Your task to perform on an android device: delete the emails in spam in the gmail app Image 0: 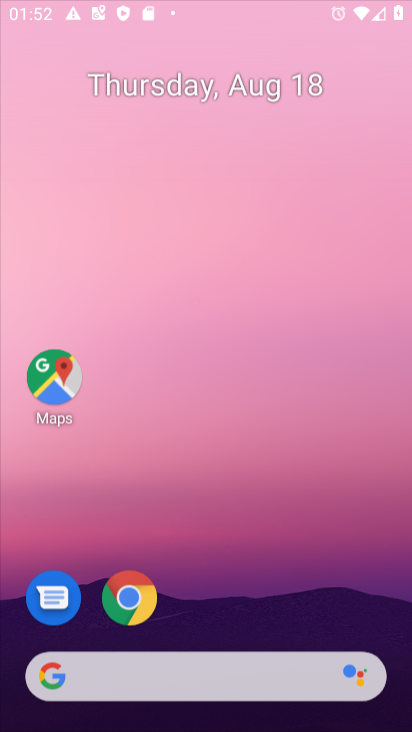
Step 0: press home button
Your task to perform on an android device: delete the emails in spam in the gmail app Image 1: 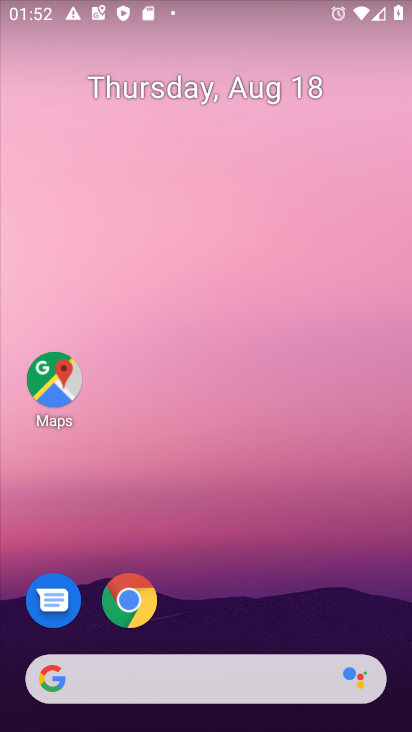
Step 1: drag from (255, 612) to (235, 65)
Your task to perform on an android device: delete the emails in spam in the gmail app Image 2: 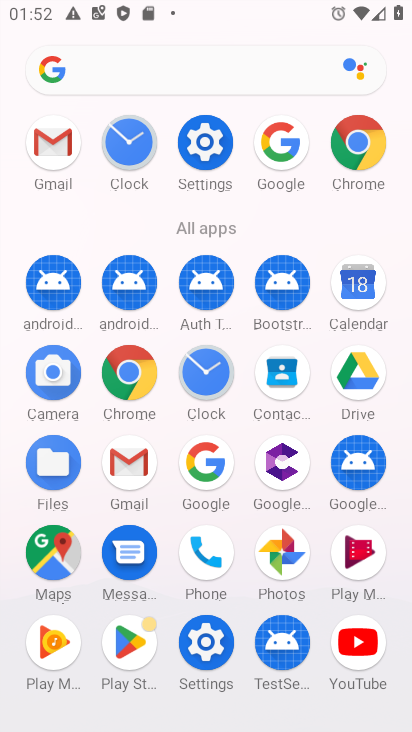
Step 2: click (55, 144)
Your task to perform on an android device: delete the emails in spam in the gmail app Image 3: 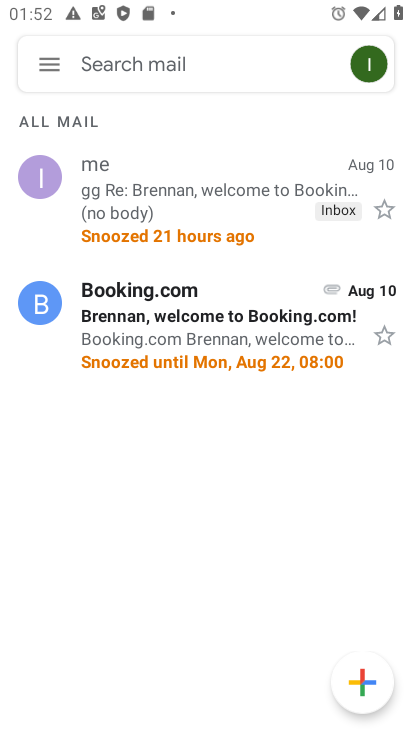
Step 3: click (47, 66)
Your task to perform on an android device: delete the emails in spam in the gmail app Image 4: 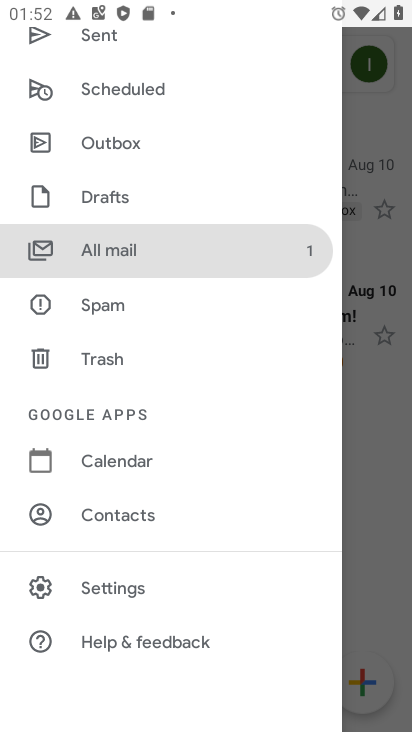
Step 4: click (100, 303)
Your task to perform on an android device: delete the emails in spam in the gmail app Image 5: 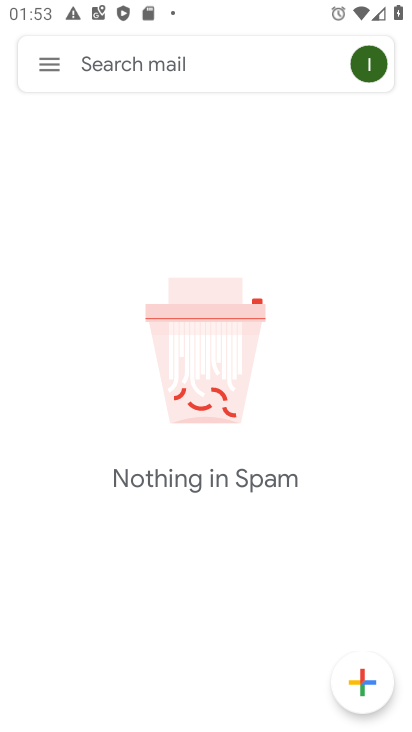
Step 5: task complete